Your task to perform on an android device: toggle priority inbox in the gmail app Image 0: 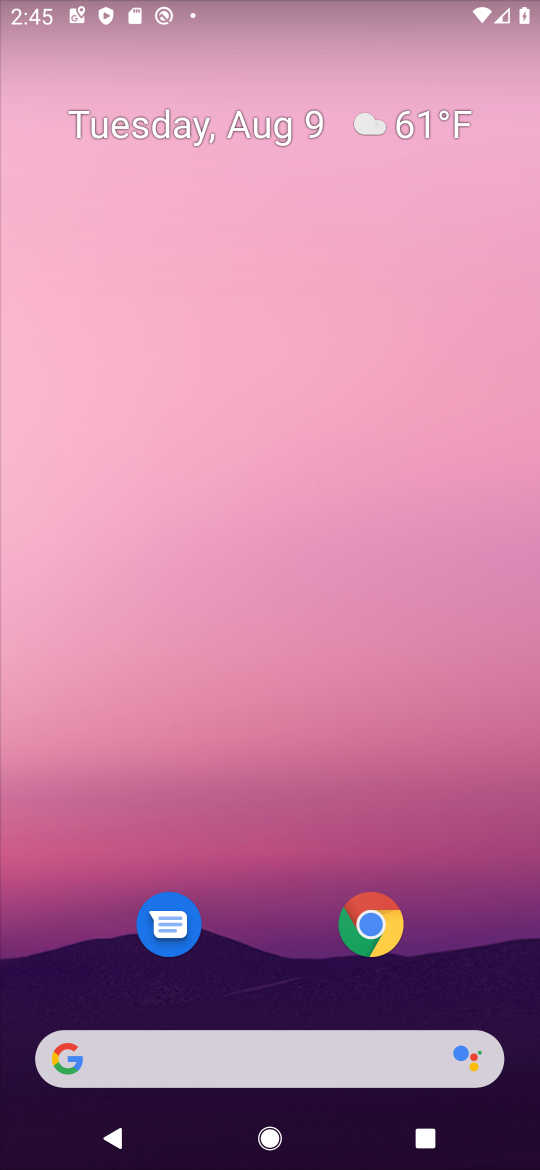
Step 0: drag from (289, 904) to (307, 0)
Your task to perform on an android device: toggle priority inbox in the gmail app Image 1: 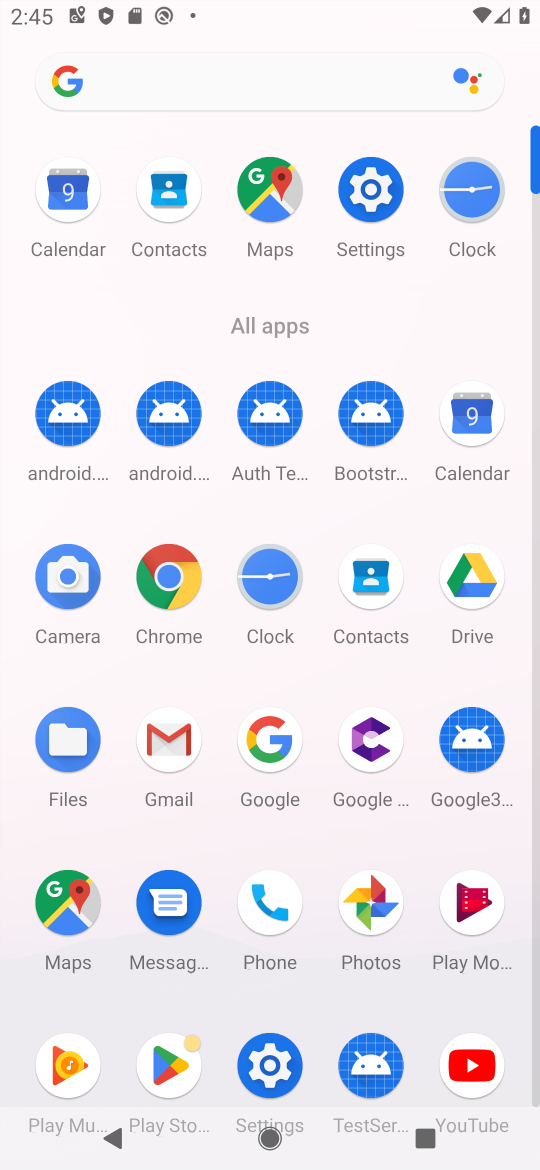
Step 1: click (178, 741)
Your task to perform on an android device: toggle priority inbox in the gmail app Image 2: 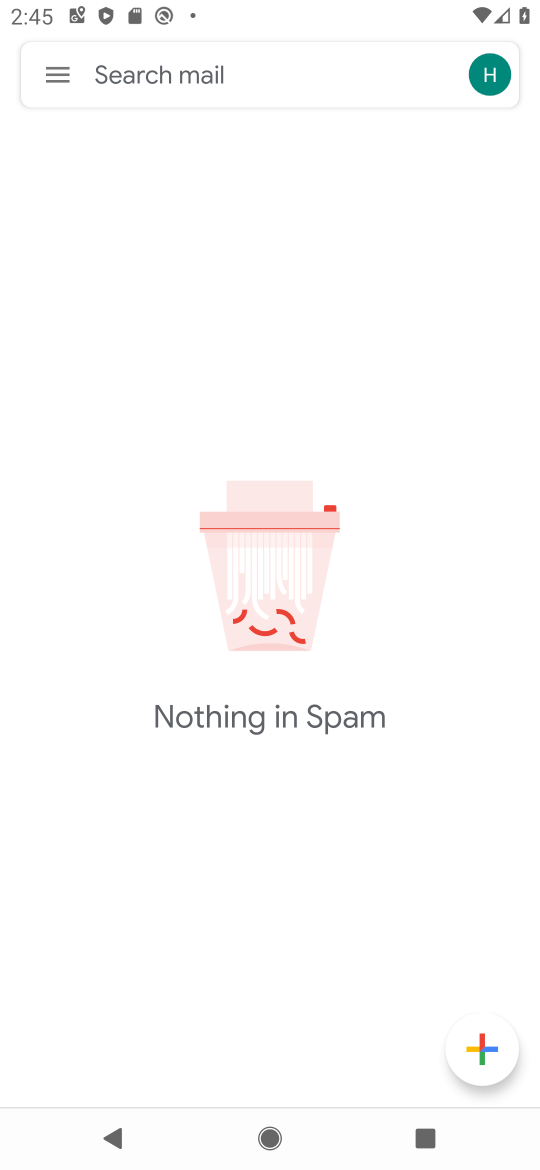
Step 2: click (57, 61)
Your task to perform on an android device: toggle priority inbox in the gmail app Image 3: 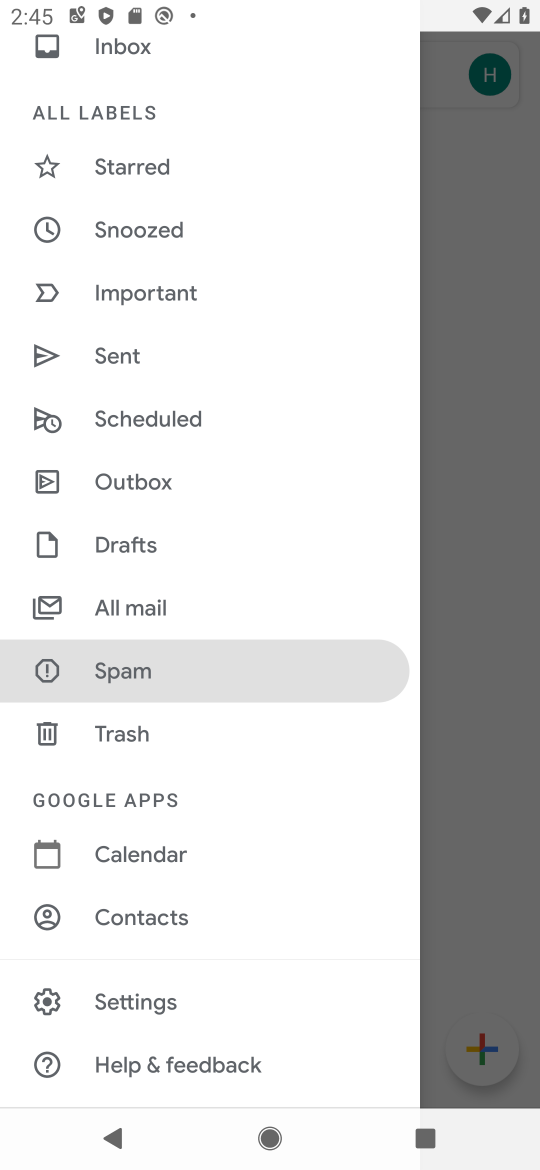
Step 3: click (155, 990)
Your task to perform on an android device: toggle priority inbox in the gmail app Image 4: 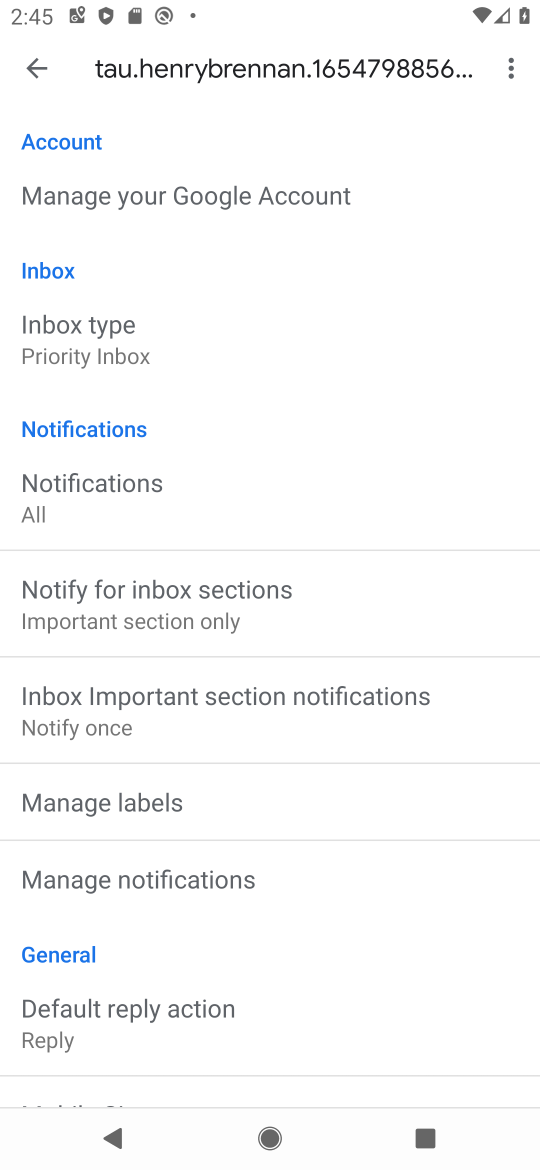
Step 4: click (120, 332)
Your task to perform on an android device: toggle priority inbox in the gmail app Image 5: 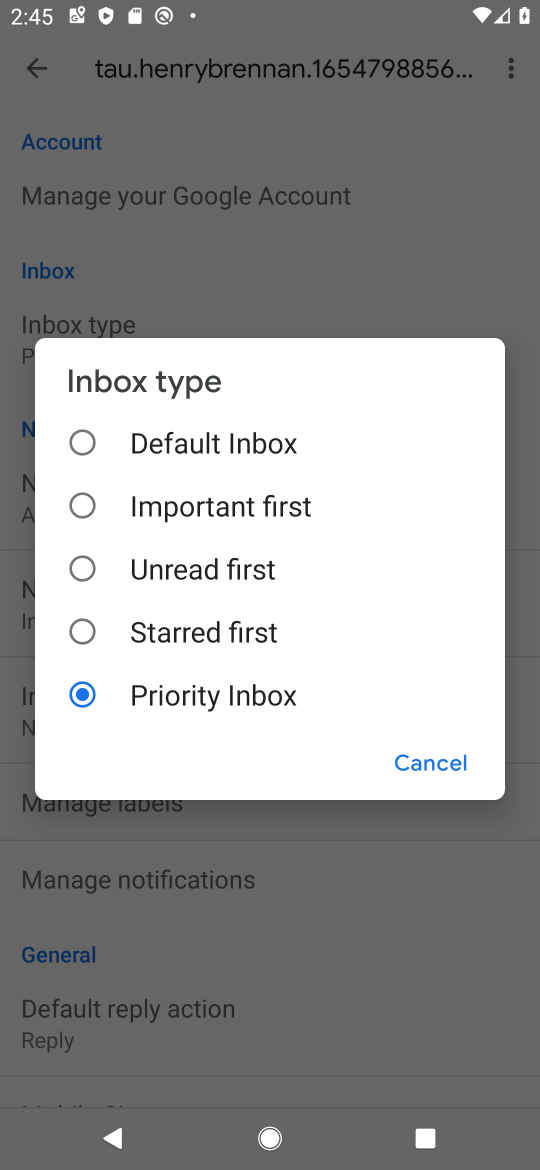
Step 5: click (90, 434)
Your task to perform on an android device: toggle priority inbox in the gmail app Image 6: 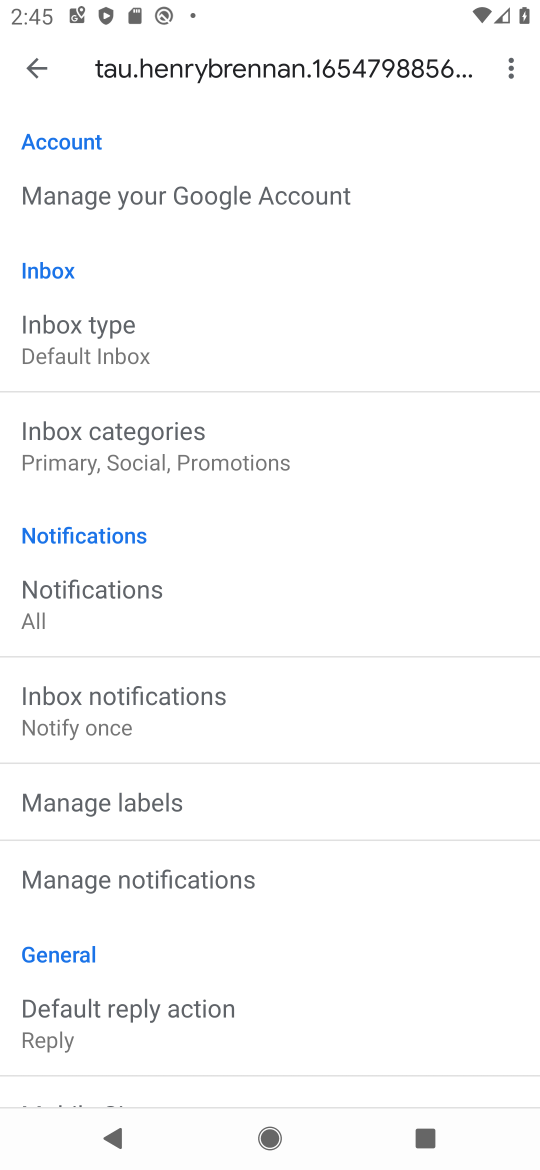
Step 6: task complete